Your task to perform on an android device: find photos in the google photos app Image 0: 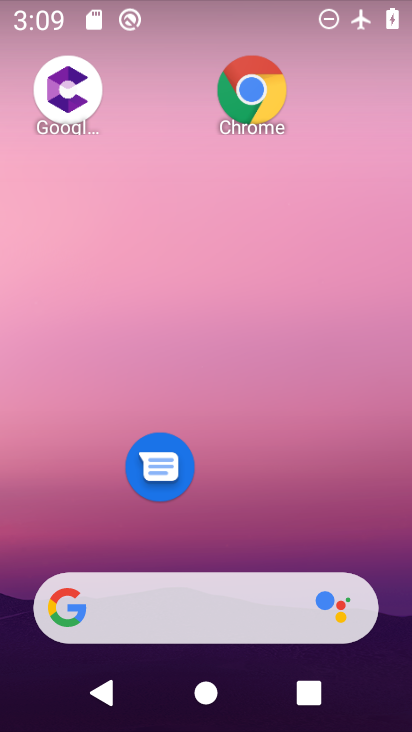
Step 0: drag from (260, 520) to (334, 105)
Your task to perform on an android device: find photos in the google photos app Image 1: 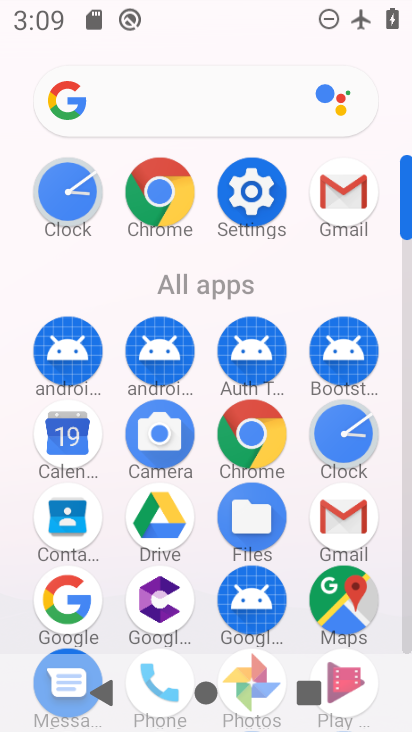
Step 1: drag from (195, 564) to (212, 336)
Your task to perform on an android device: find photos in the google photos app Image 2: 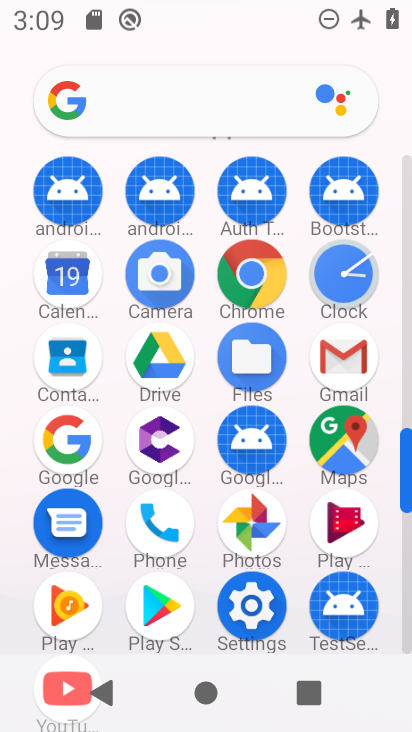
Step 2: click (239, 519)
Your task to perform on an android device: find photos in the google photos app Image 3: 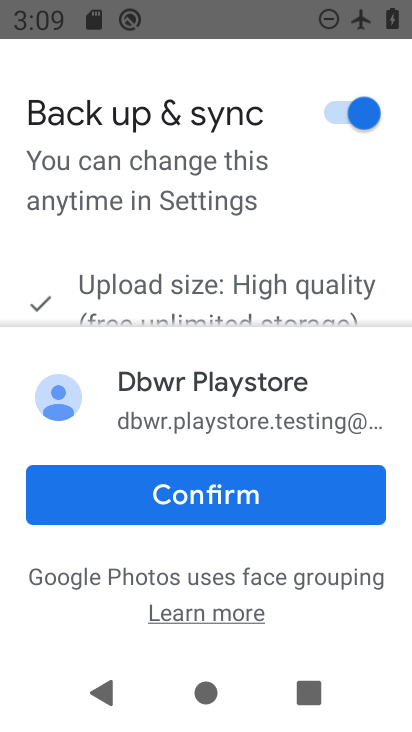
Step 3: click (246, 490)
Your task to perform on an android device: find photos in the google photos app Image 4: 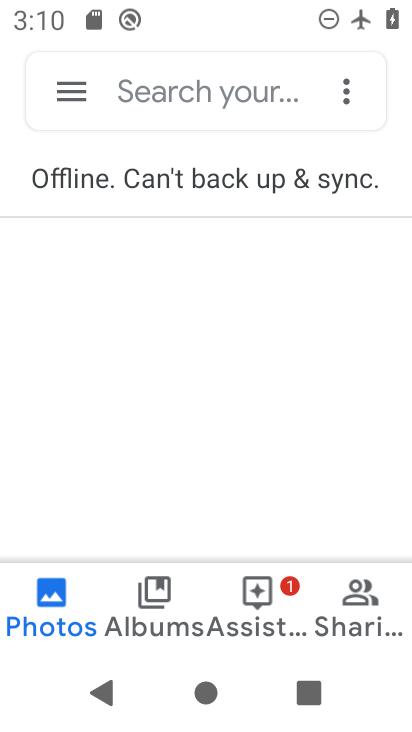
Step 4: task complete